Your task to perform on an android device: toggle wifi Image 0: 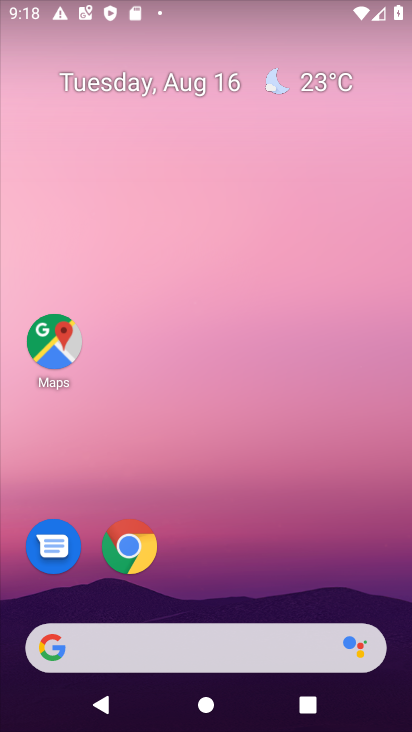
Step 0: drag from (215, 542) to (281, 0)
Your task to perform on an android device: toggle wifi Image 1: 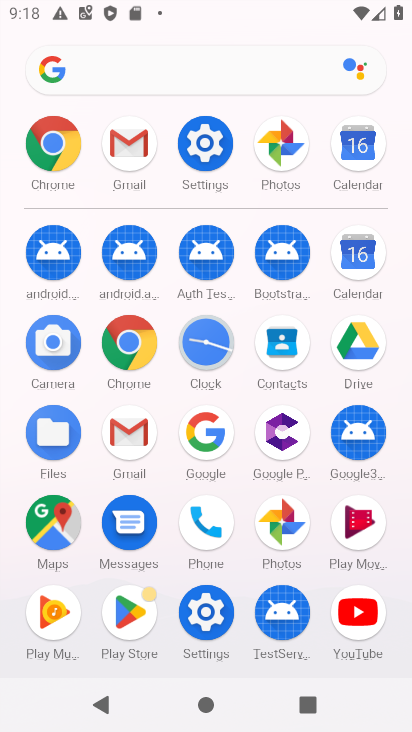
Step 1: click (211, 144)
Your task to perform on an android device: toggle wifi Image 2: 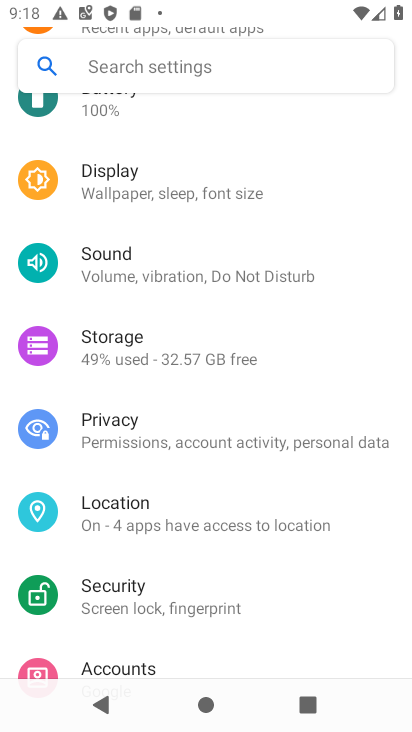
Step 2: drag from (212, 342) to (230, 634)
Your task to perform on an android device: toggle wifi Image 3: 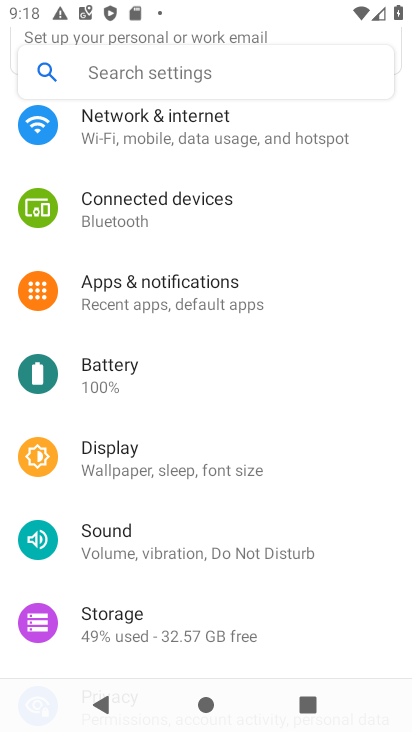
Step 3: click (205, 139)
Your task to perform on an android device: toggle wifi Image 4: 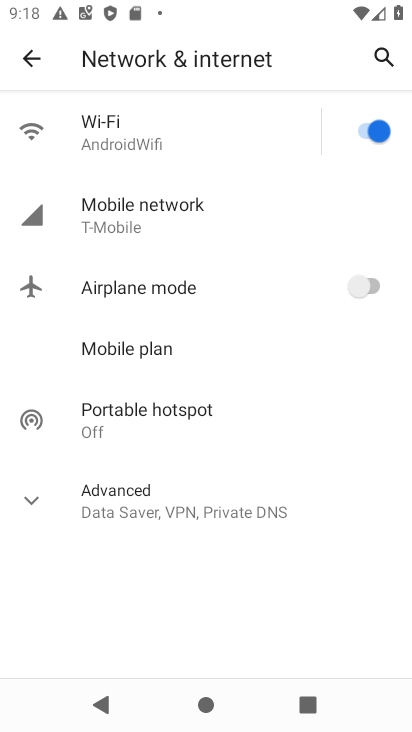
Step 4: click (369, 128)
Your task to perform on an android device: toggle wifi Image 5: 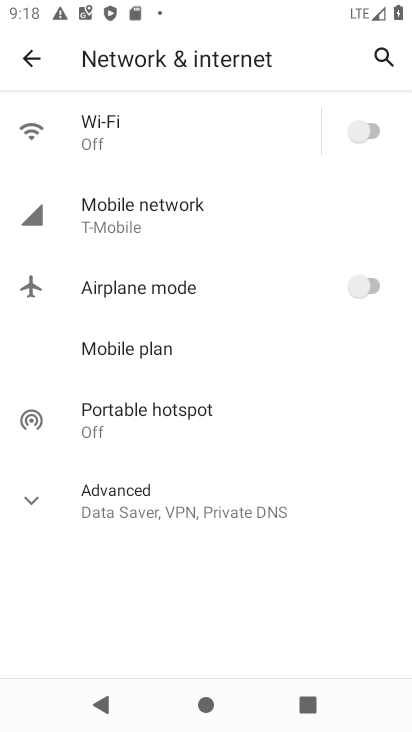
Step 5: task complete